Your task to perform on an android device: turn on notifications settings in the gmail app Image 0: 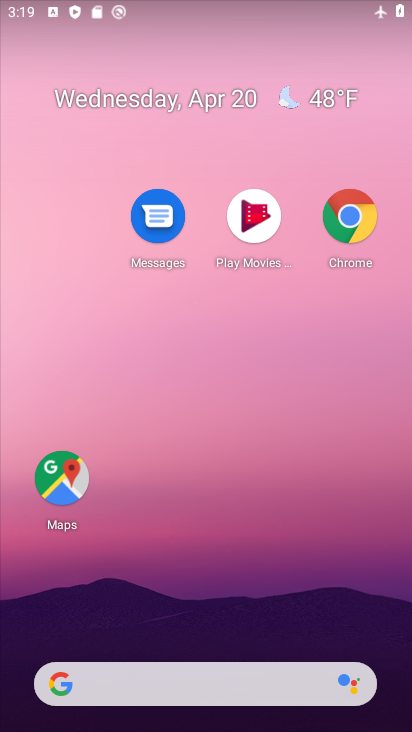
Step 0: drag from (278, 564) to (305, 11)
Your task to perform on an android device: turn on notifications settings in the gmail app Image 1: 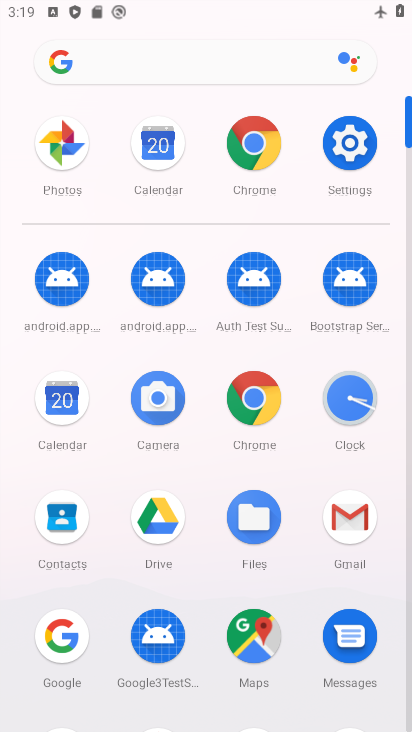
Step 1: click (354, 527)
Your task to perform on an android device: turn on notifications settings in the gmail app Image 2: 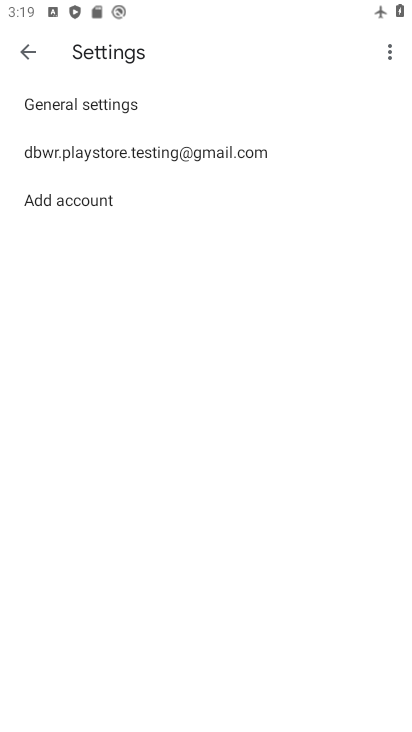
Step 2: click (152, 161)
Your task to perform on an android device: turn on notifications settings in the gmail app Image 3: 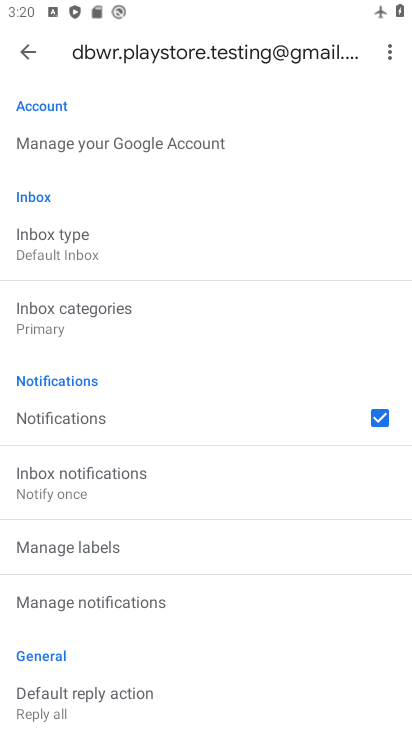
Step 3: click (157, 585)
Your task to perform on an android device: turn on notifications settings in the gmail app Image 4: 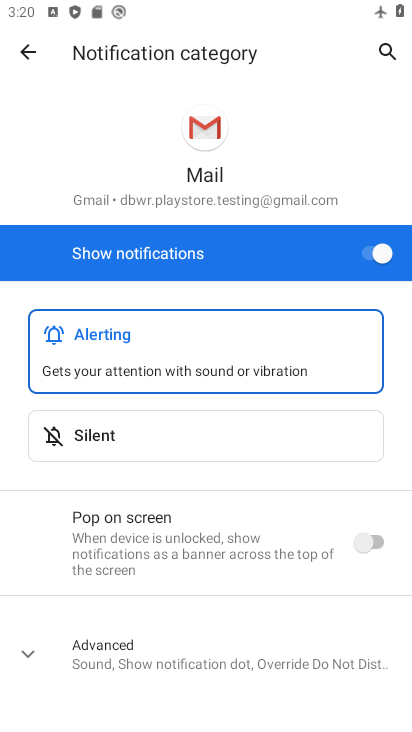
Step 4: task complete